Your task to perform on an android device: Open Android settings Image 0: 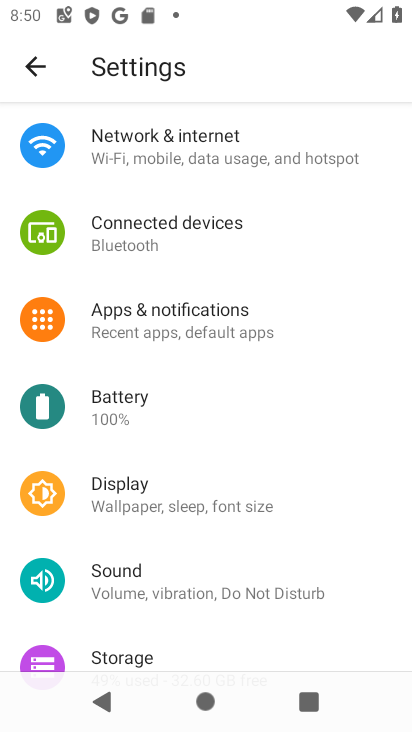
Step 0: press home button
Your task to perform on an android device: Open Android settings Image 1: 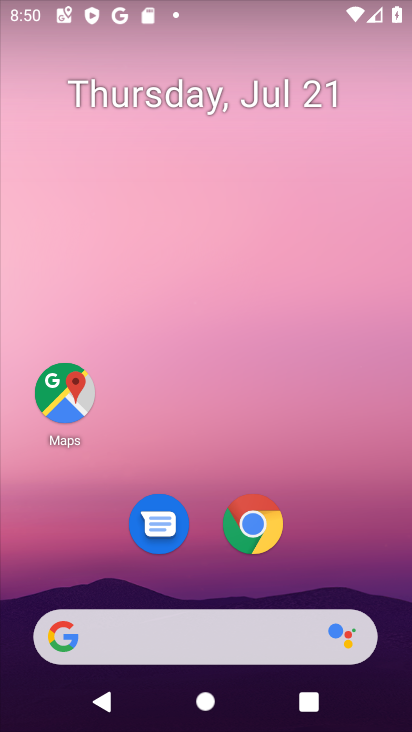
Step 1: drag from (180, 643) to (368, 168)
Your task to perform on an android device: Open Android settings Image 2: 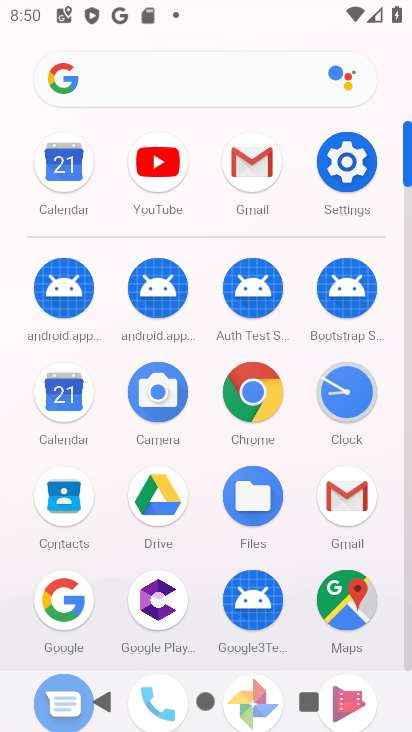
Step 2: click (339, 166)
Your task to perform on an android device: Open Android settings Image 3: 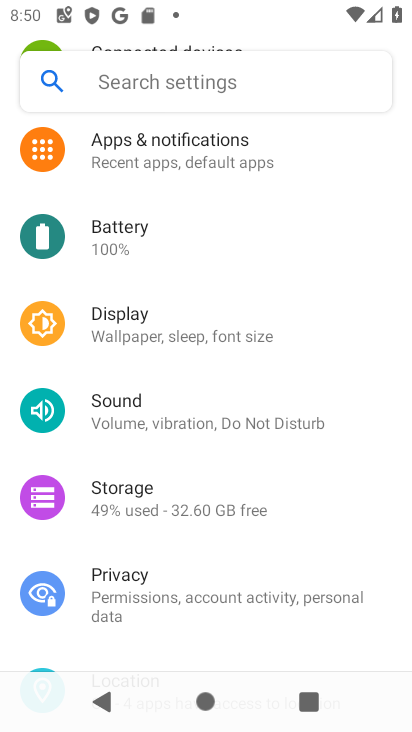
Step 3: task complete